Your task to perform on an android device: change text size in settings app Image 0: 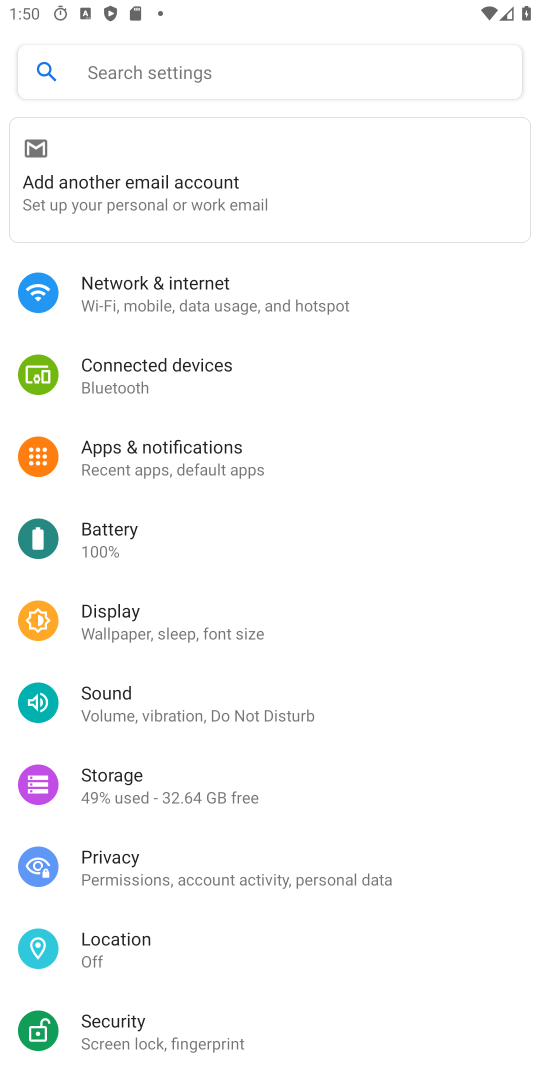
Step 0: click (291, 631)
Your task to perform on an android device: change text size in settings app Image 1: 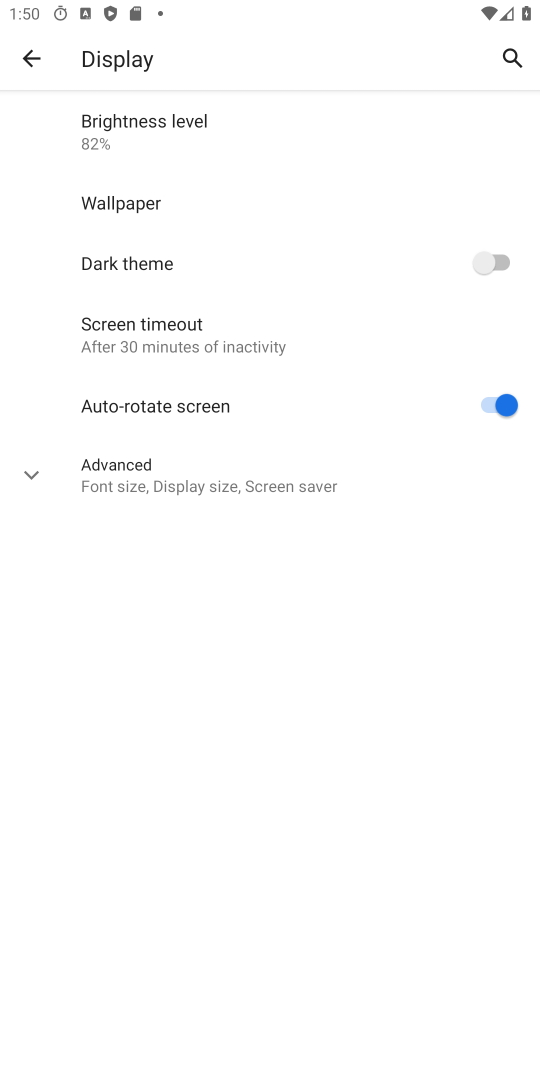
Step 1: click (232, 451)
Your task to perform on an android device: change text size in settings app Image 2: 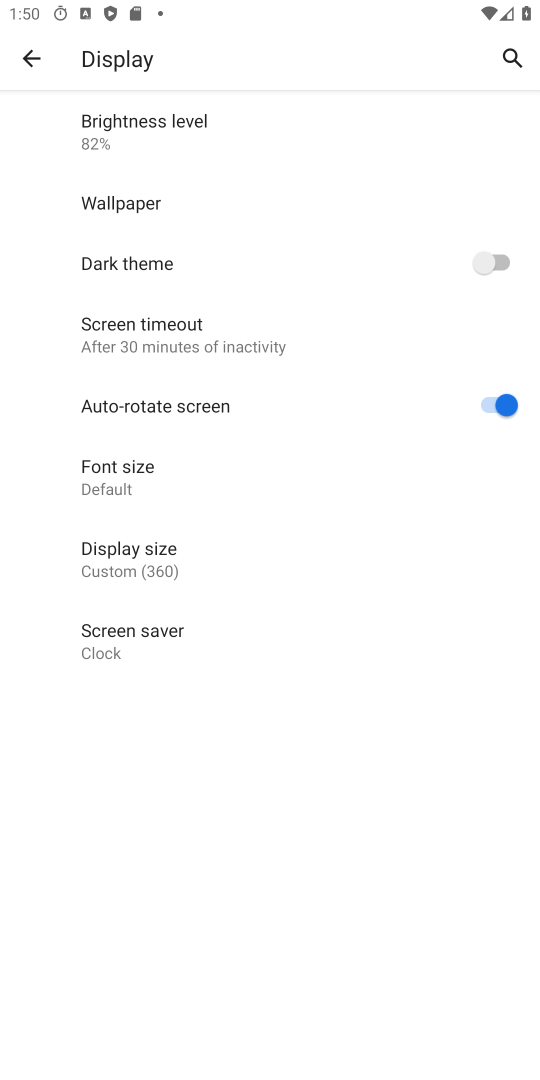
Step 2: click (213, 499)
Your task to perform on an android device: change text size in settings app Image 3: 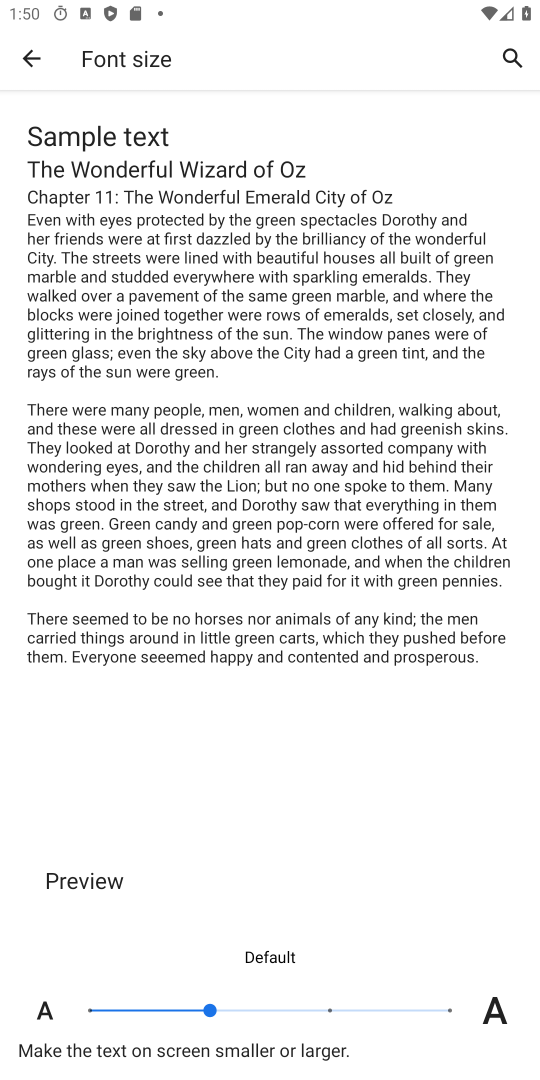
Step 3: click (335, 1013)
Your task to perform on an android device: change text size in settings app Image 4: 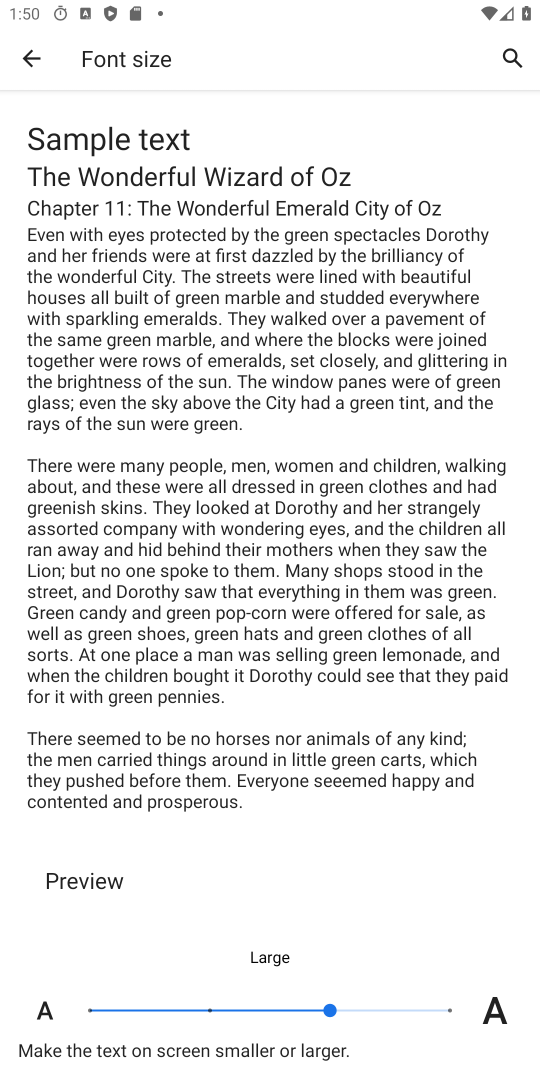
Step 4: task complete